Your task to perform on an android device: Open Chrome and go to the settings page Image 0: 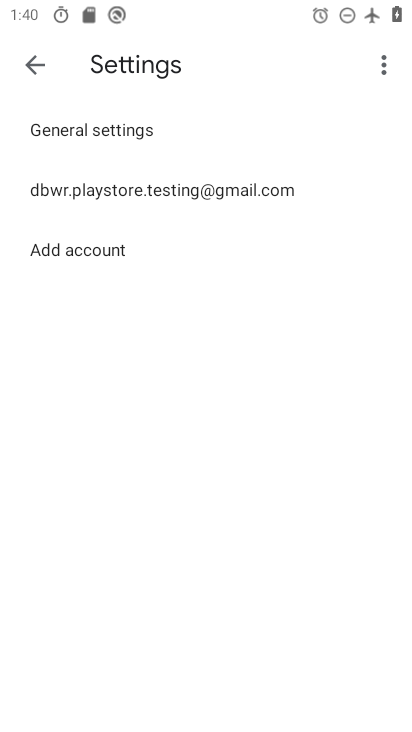
Step 0: press home button
Your task to perform on an android device: Open Chrome and go to the settings page Image 1: 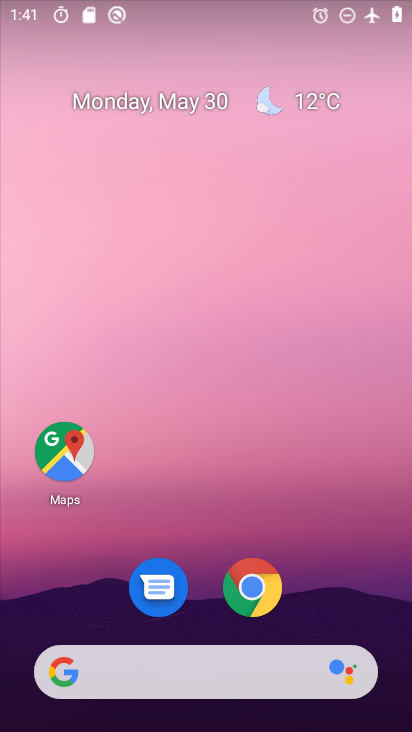
Step 1: click (256, 578)
Your task to perform on an android device: Open Chrome and go to the settings page Image 2: 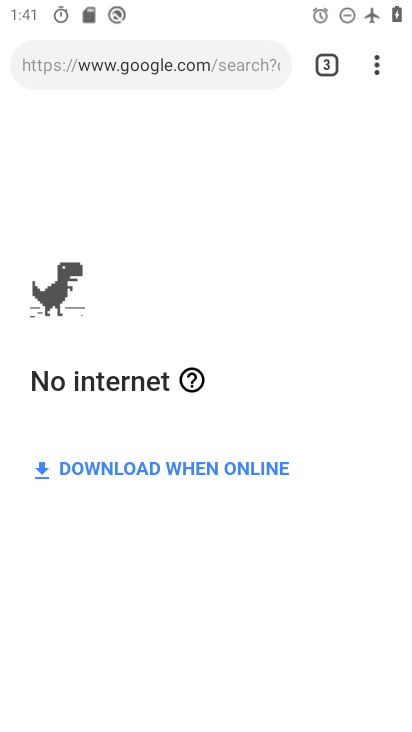
Step 2: task complete